Your task to perform on an android device: change the clock display to show seconds Image 0: 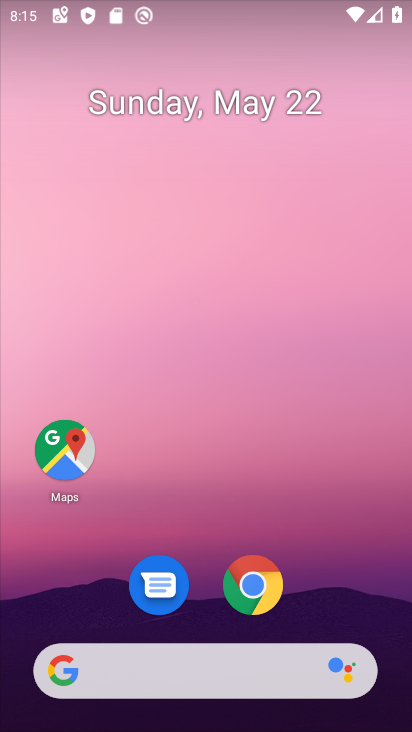
Step 0: drag from (299, 501) to (271, 0)
Your task to perform on an android device: change the clock display to show seconds Image 1: 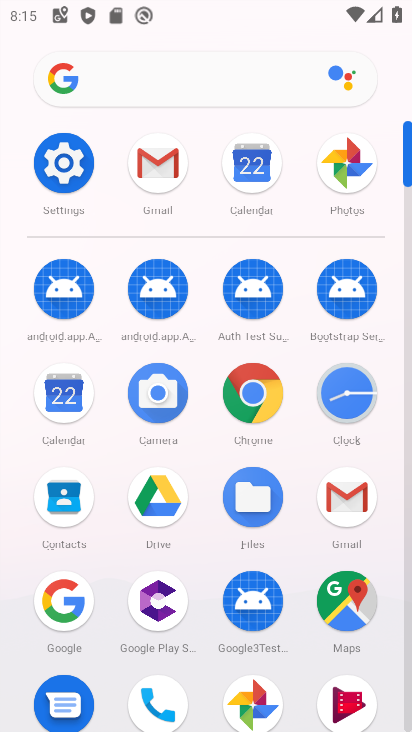
Step 1: click (348, 397)
Your task to perform on an android device: change the clock display to show seconds Image 2: 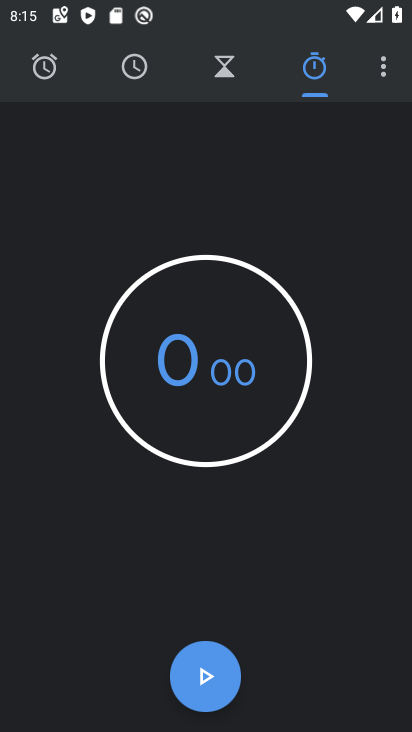
Step 2: click (377, 62)
Your task to perform on an android device: change the clock display to show seconds Image 3: 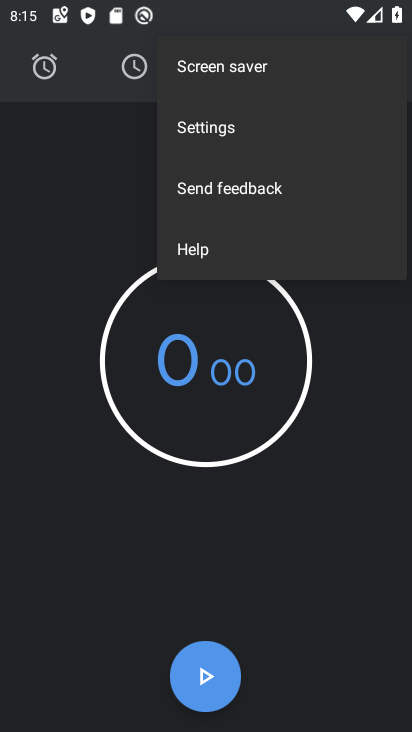
Step 3: click (282, 130)
Your task to perform on an android device: change the clock display to show seconds Image 4: 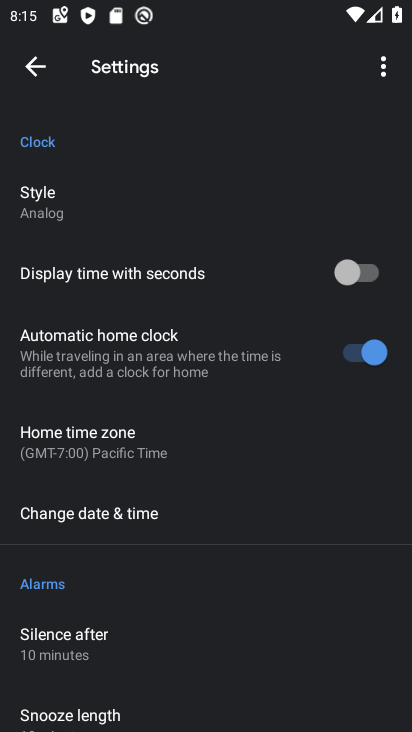
Step 4: click (372, 274)
Your task to perform on an android device: change the clock display to show seconds Image 5: 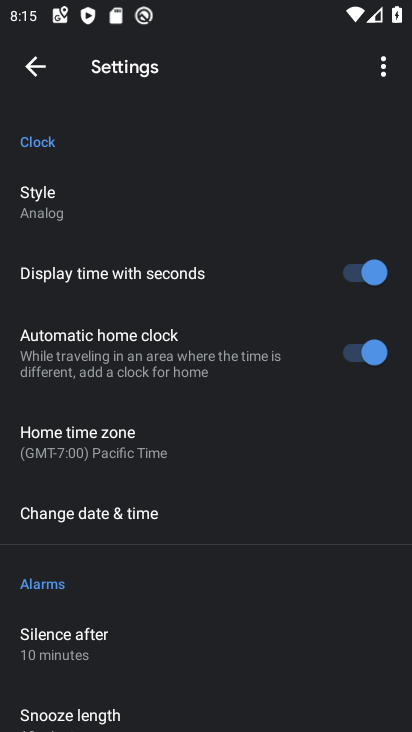
Step 5: click (38, 64)
Your task to perform on an android device: change the clock display to show seconds Image 6: 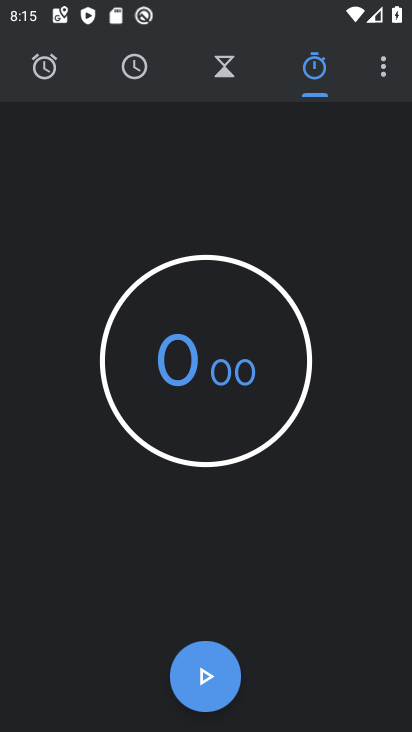
Step 6: click (120, 61)
Your task to perform on an android device: change the clock display to show seconds Image 7: 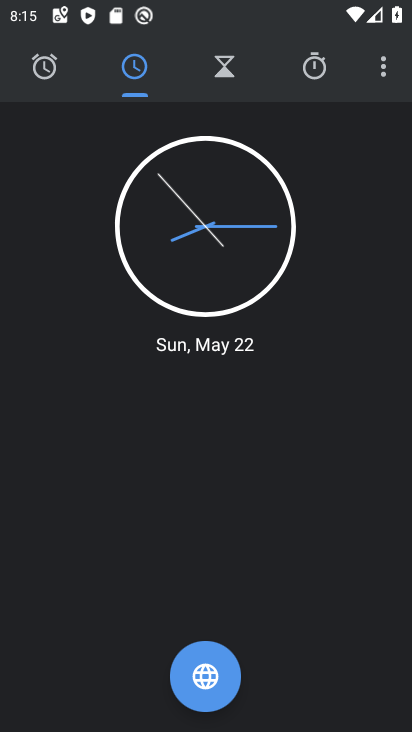
Step 7: task complete